Your task to perform on an android device: check google app version Image 0: 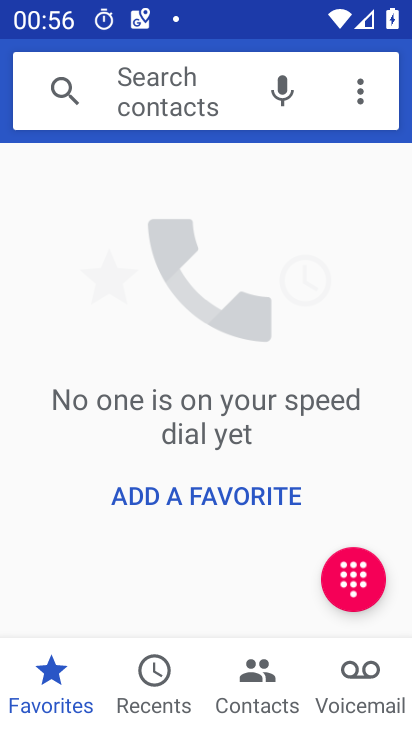
Step 0: press home button
Your task to perform on an android device: check google app version Image 1: 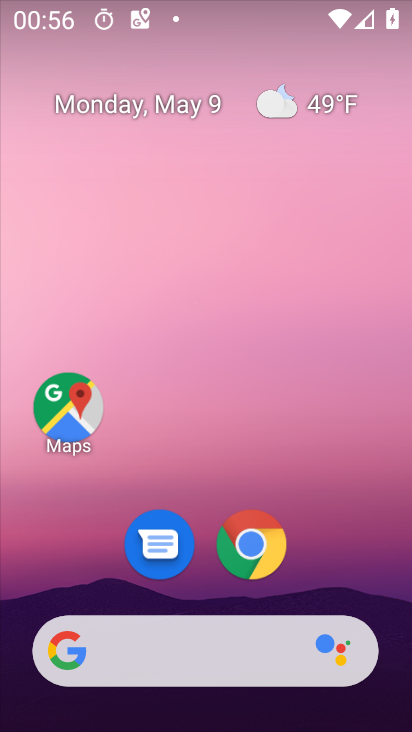
Step 1: drag from (268, 603) to (350, 6)
Your task to perform on an android device: check google app version Image 2: 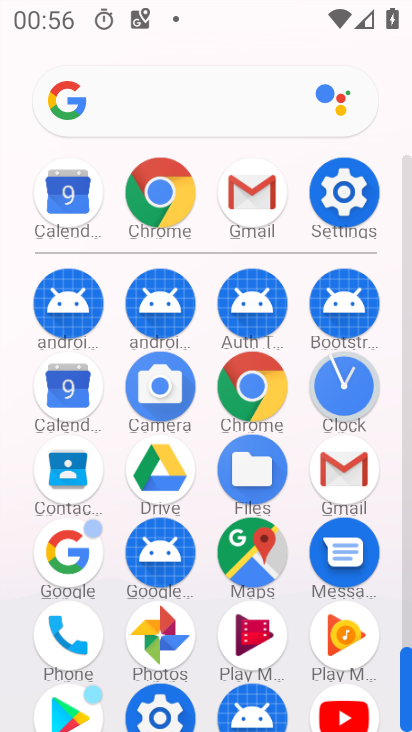
Step 2: click (341, 188)
Your task to perform on an android device: check google app version Image 3: 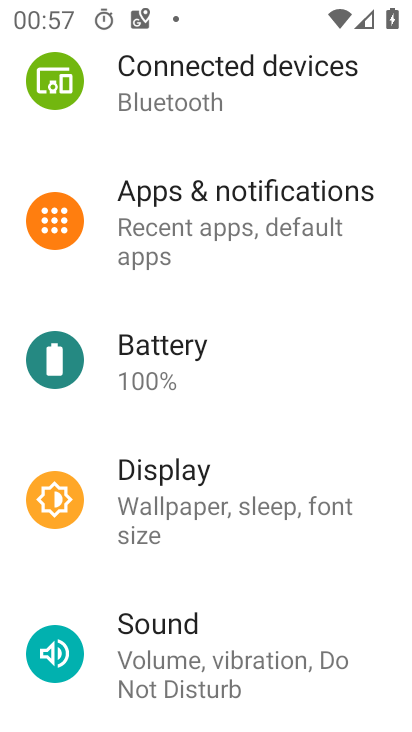
Step 3: drag from (343, 169) to (339, 683)
Your task to perform on an android device: check google app version Image 4: 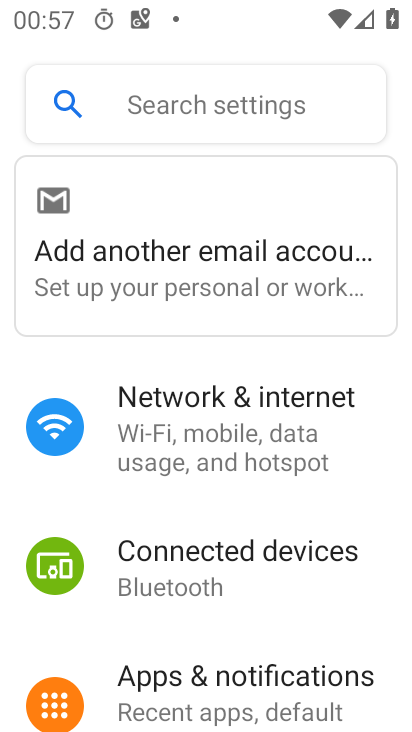
Step 4: press home button
Your task to perform on an android device: check google app version Image 5: 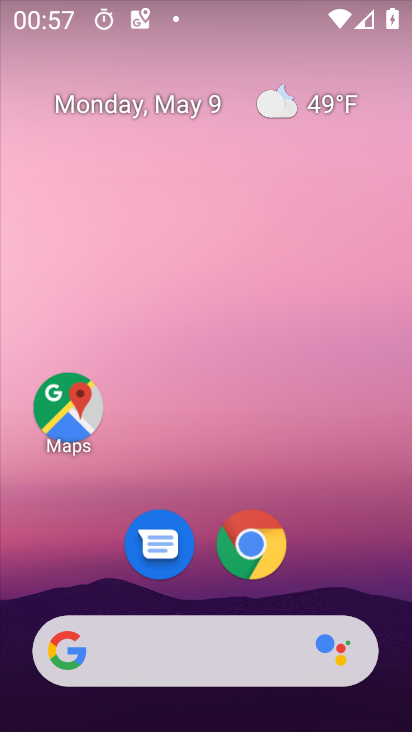
Step 5: drag from (171, 685) to (278, 13)
Your task to perform on an android device: check google app version Image 6: 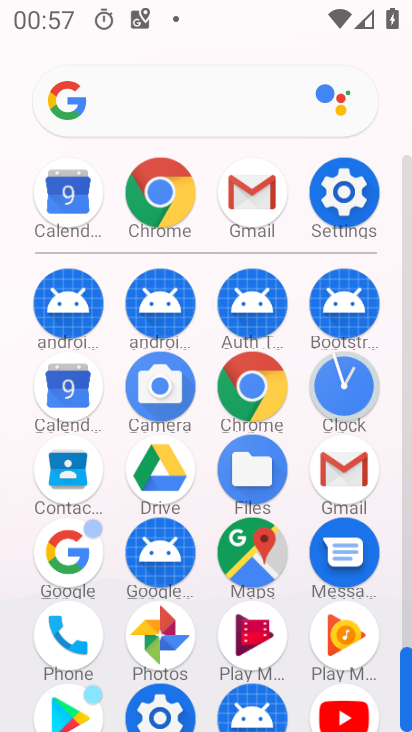
Step 6: drag from (269, 703) to (330, 133)
Your task to perform on an android device: check google app version Image 7: 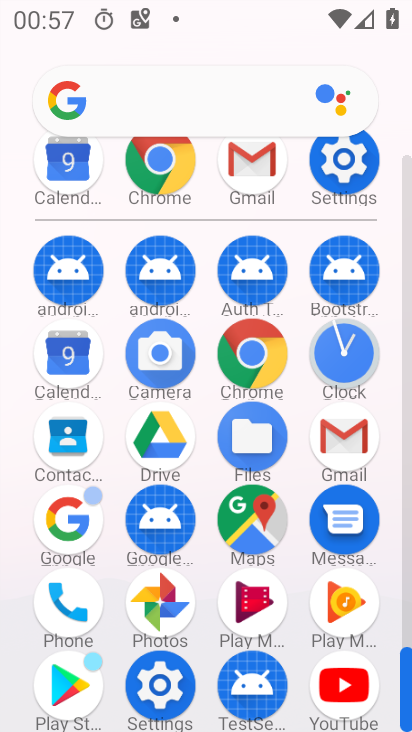
Step 7: press home button
Your task to perform on an android device: check google app version Image 8: 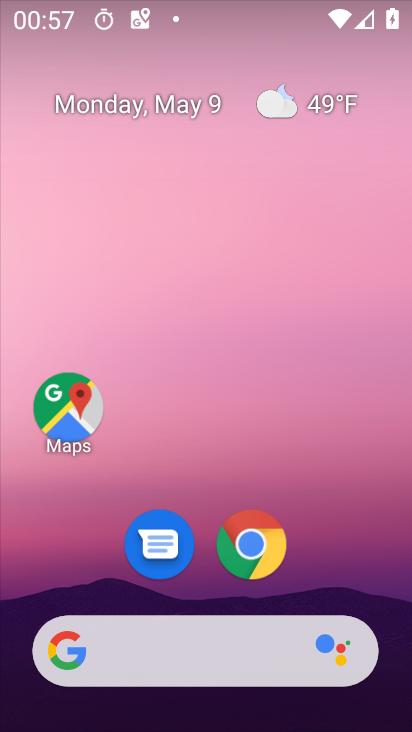
Step 8: drag from (283, 628) to (260, 72)
Your task to perform on an android device: check google app version Image 9: 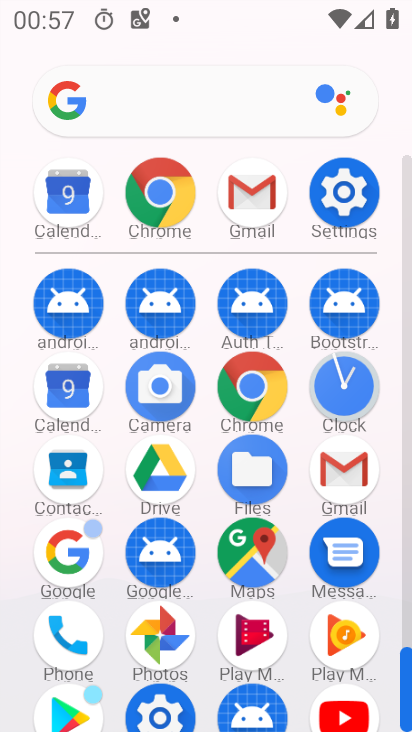
Step 9: click (241, 384)
Your task to perform on an android device: check google app version Image 10: 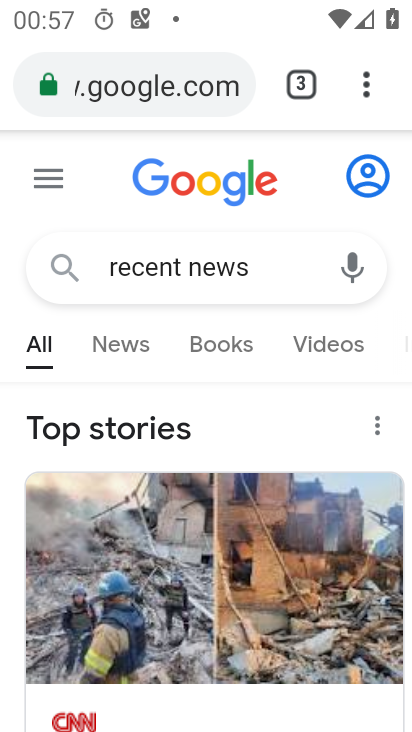
Step 10: drag from (363, 70) to (168, 672)
Your task to perform on an android device: check google app version Image 11: 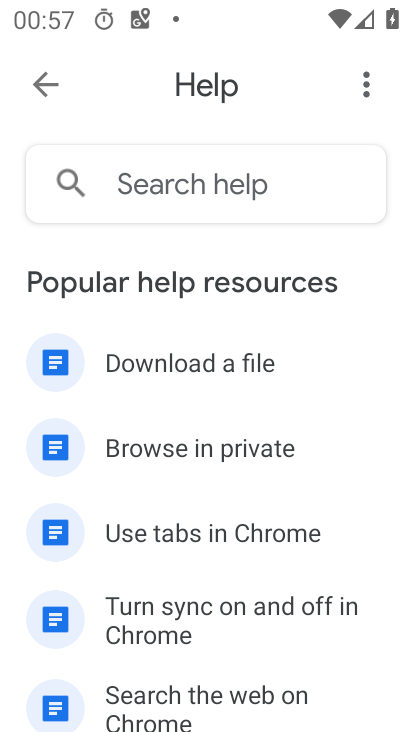
Step 11: drag from (366, 88) to (324, 346)
Your task to perform on an android device: check google app version Image 12: 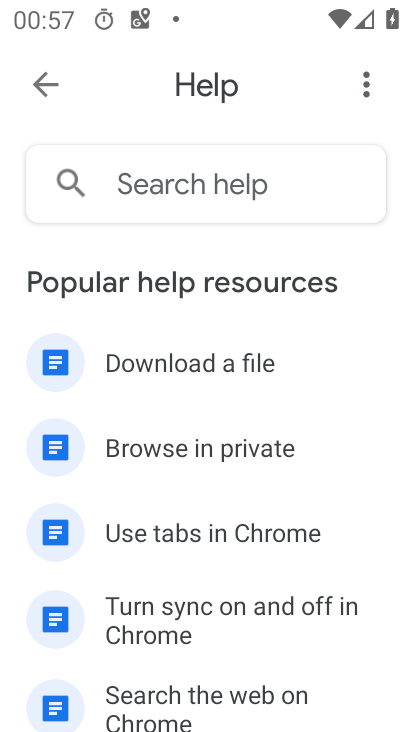
Step 12: drag from (376, 78) to (323, 295)
Your task to perform on an android device: check google app version Image 13: 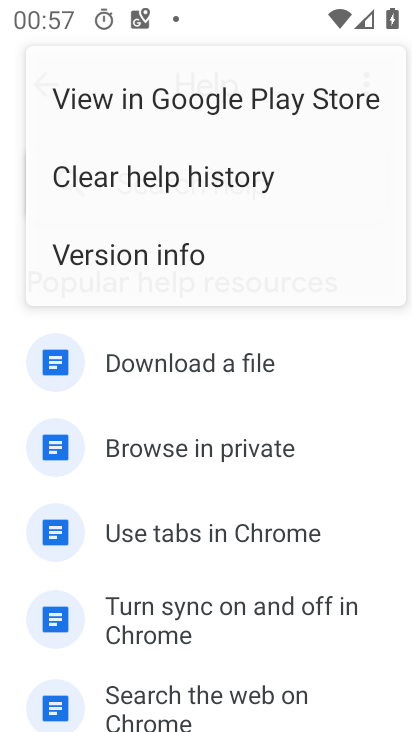
Step 13: click (301, 290)
Your task to perform on an android device: check google app version Image 14: 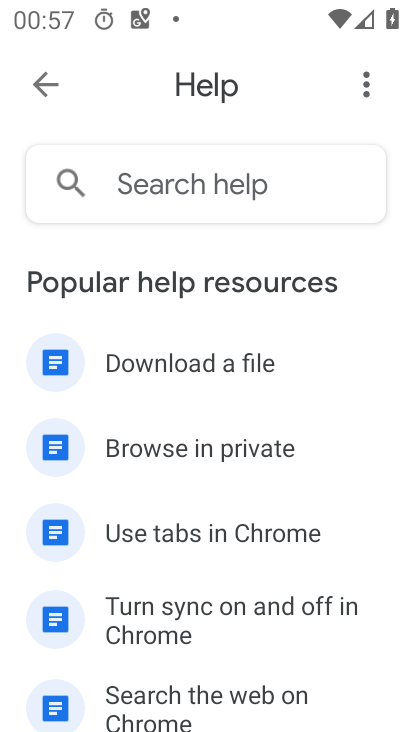
Step 14: click (368, 78)
Your task to perform on an android device: check google app version Image 15: 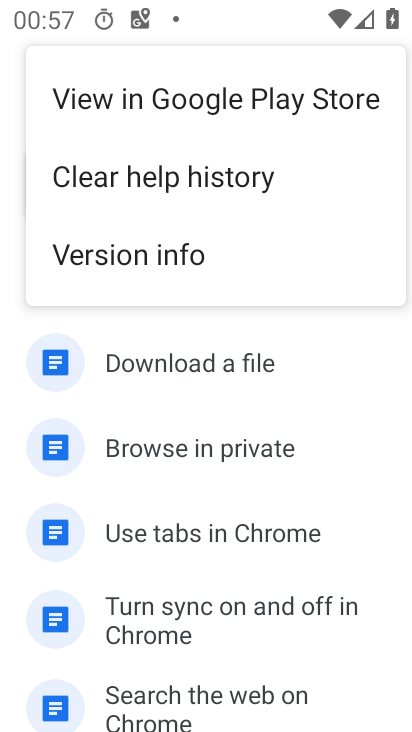
Step 15: click (242, 263)
Your task to perform on an android device: check google app version Image 16: 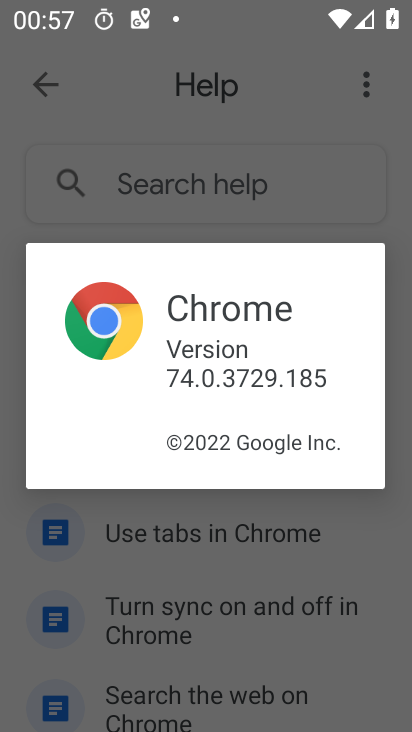
Step 16: task complete